Your task to perform on an android device: Toggle the flashlight Image 0: 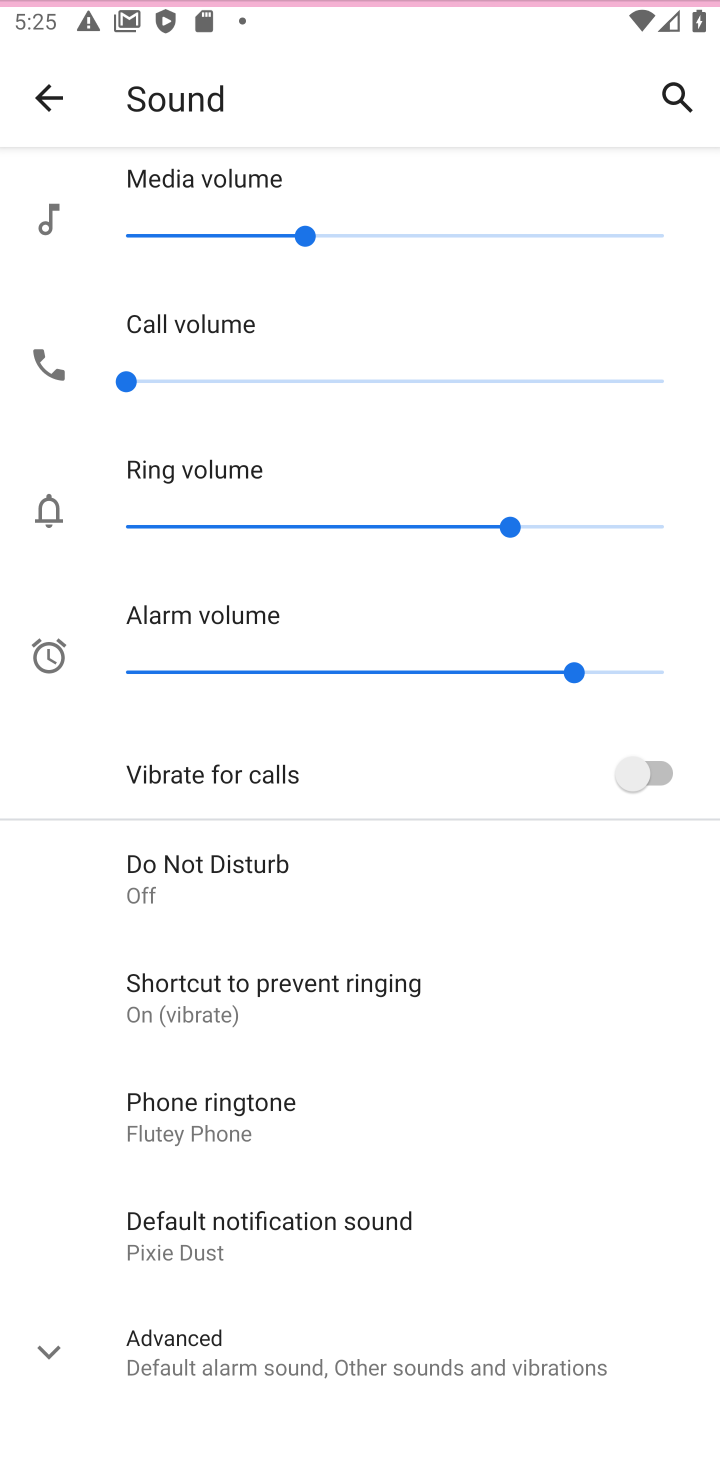
Step 0: press home button
Your task to perform on an android device: Toggle the flashlight Image 1: 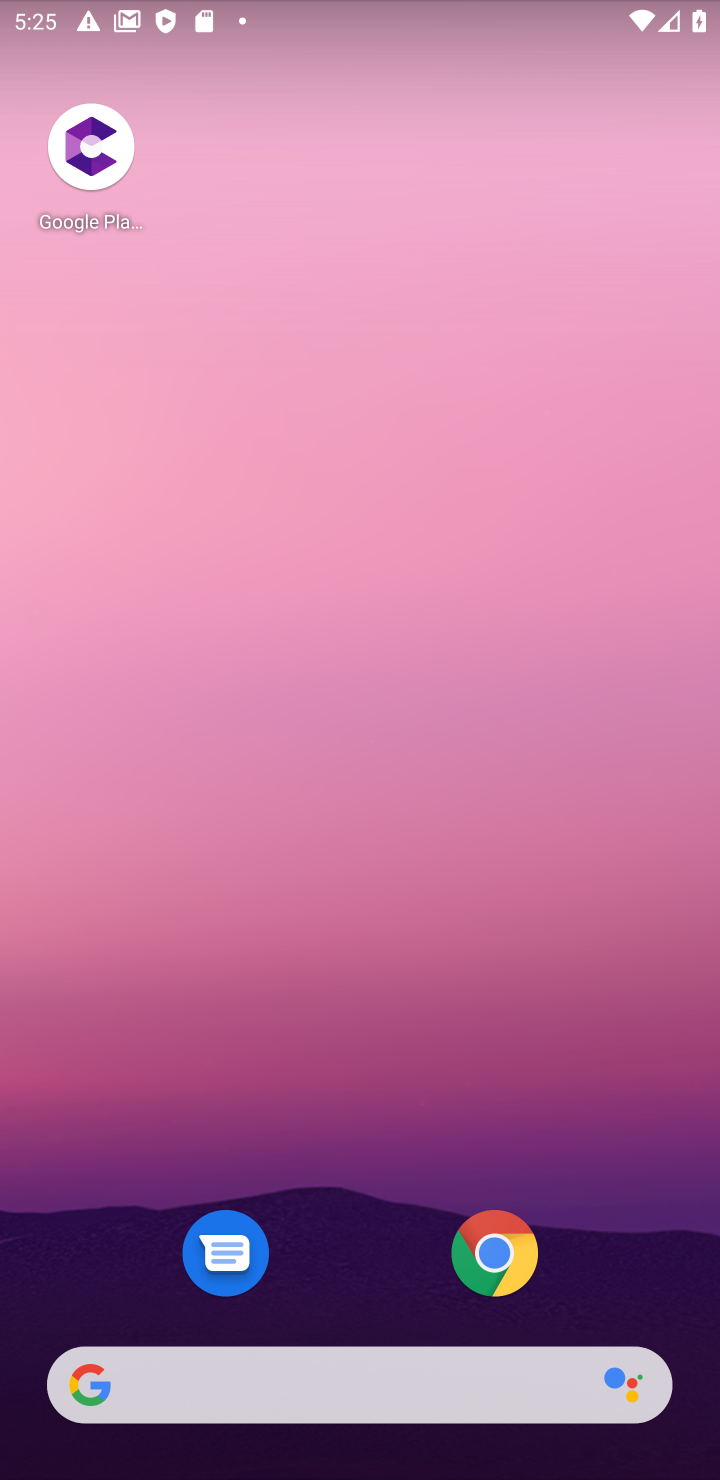
Step 1: drag from (400, 771) to (412, 111)
Your task to perform on an android device: Toggle the flashlight Image 2: 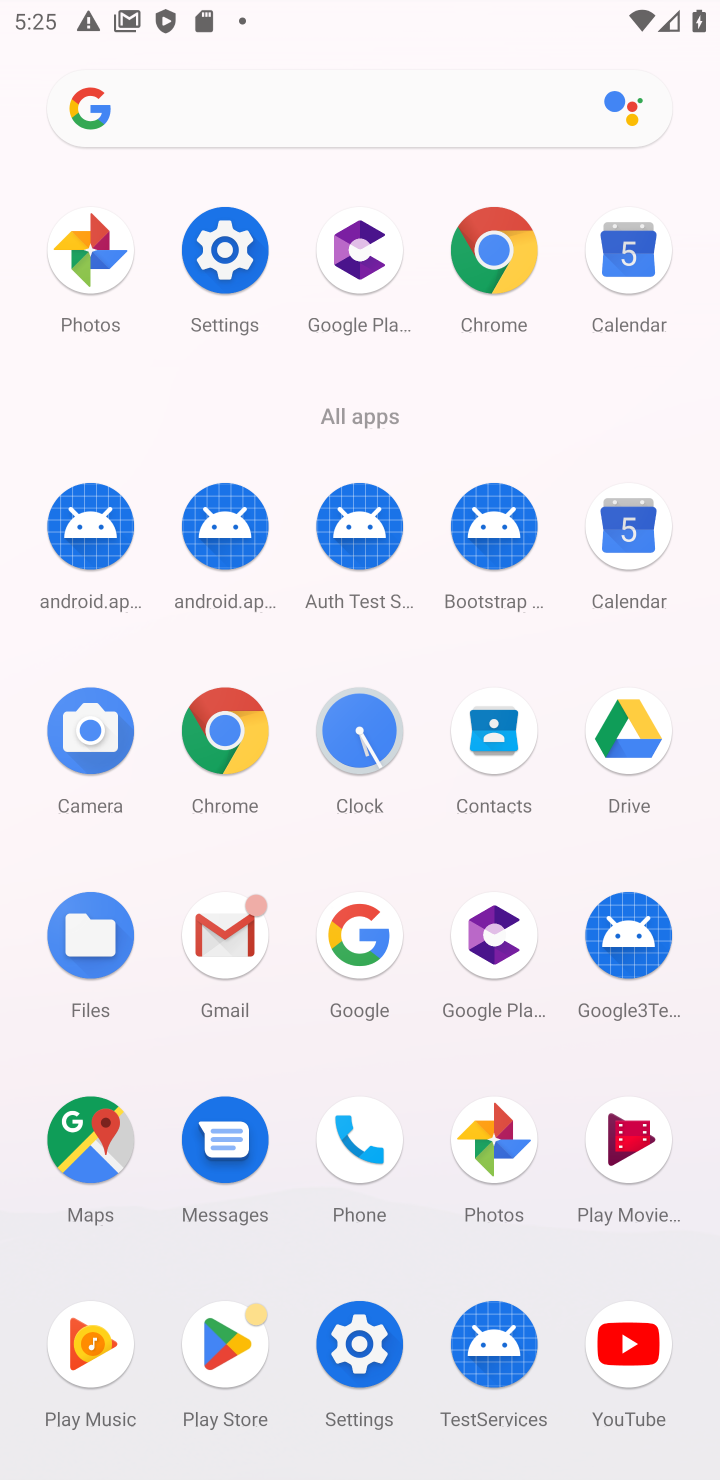
Step 2: click (199, 294)
Your task to perform on an android device: Toggle the flashlight Image 3: 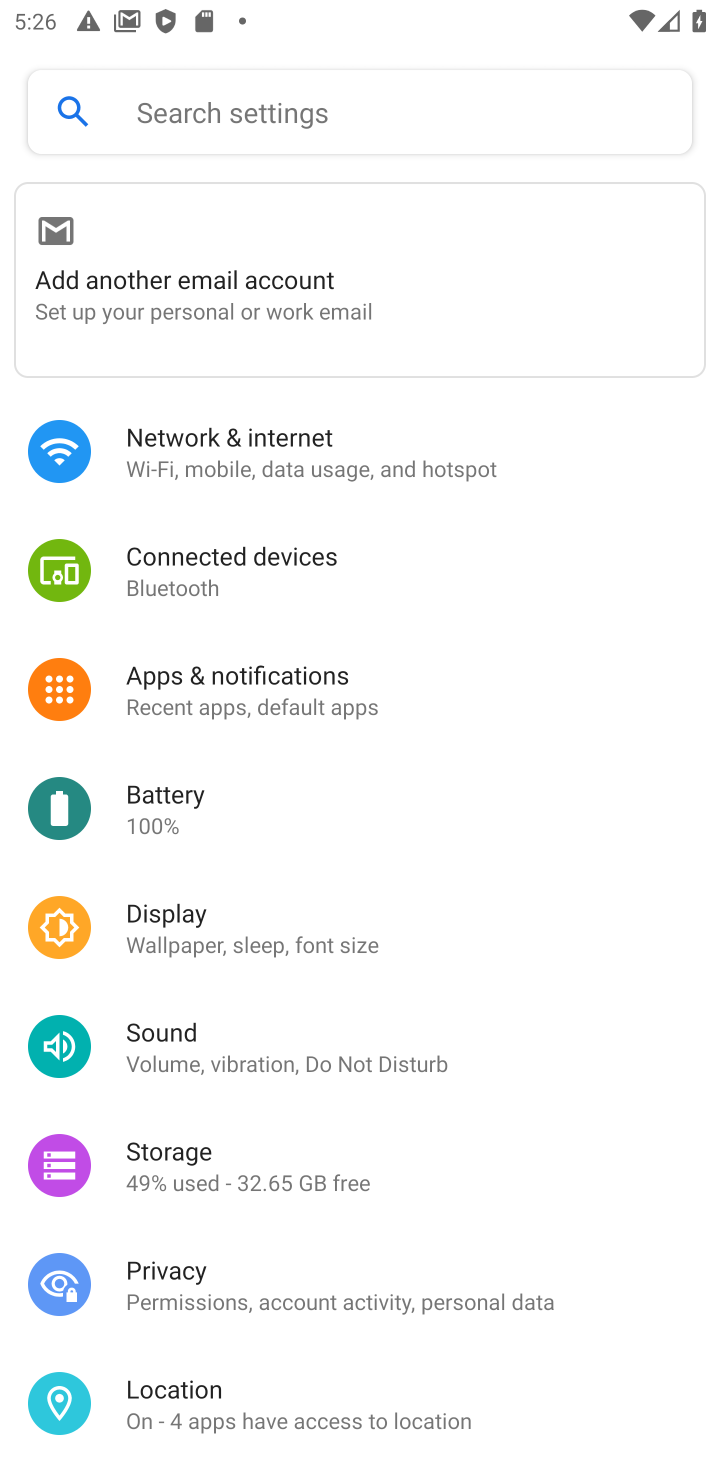
Step 3: task complete